Your task to perform on an android device: Go to ESPN.com Image 0: 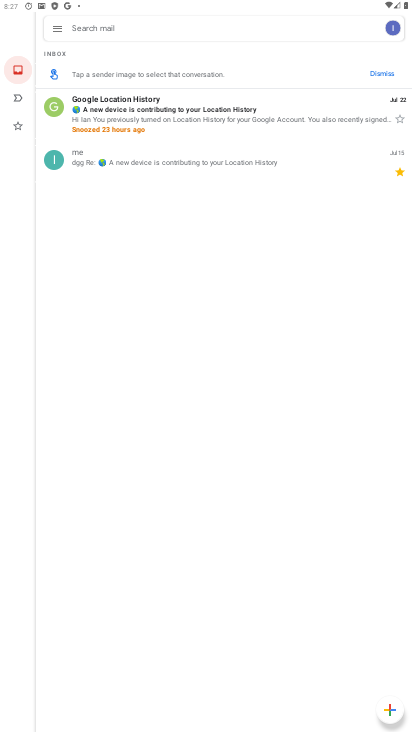
Step 0: press home button
Your task to perform on an android device: Go to ESPN.com Image 1: 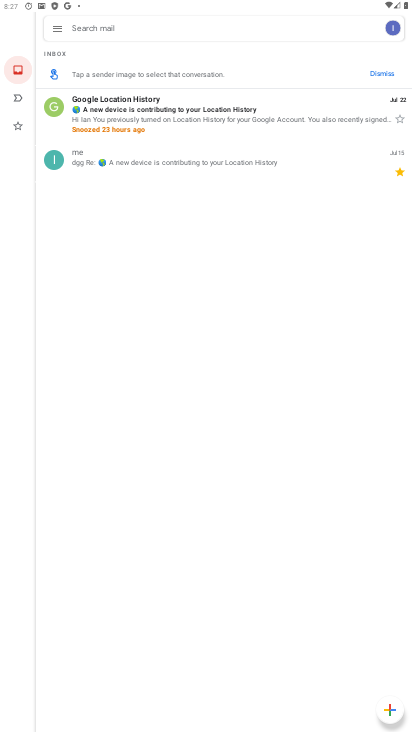
Step 1: press home button
Your task to perform on an android device: Go to ESPN.com Image 2: 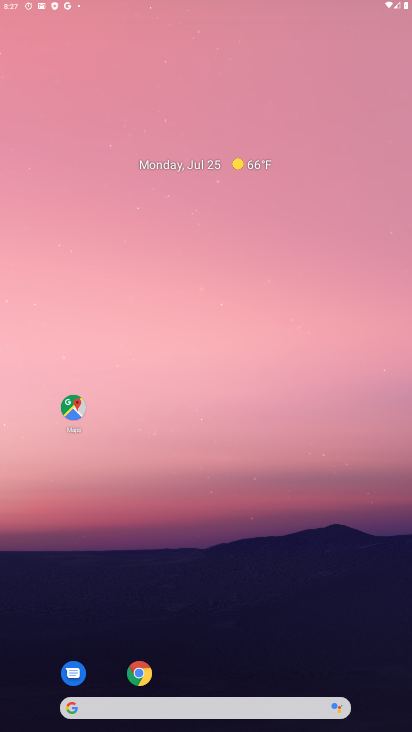
Step 2: drag from (230, 567) to (304, 37)
Your task to perform on an android device: Go to ESPN.com Image 3: 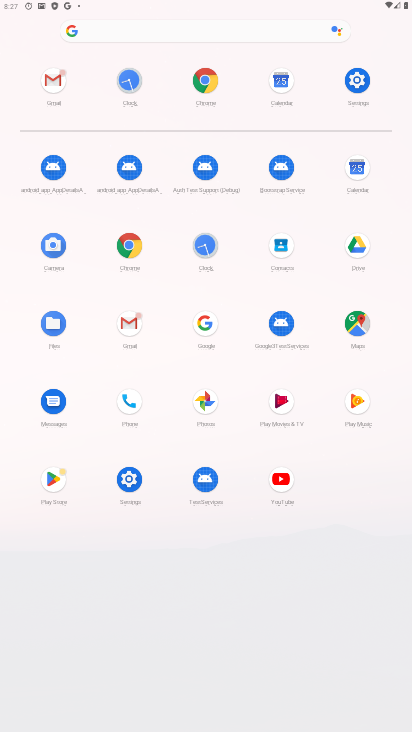
Step 3: click (123, 30)
Your task to perform on an android device: Go to ESPN.com Image 4: 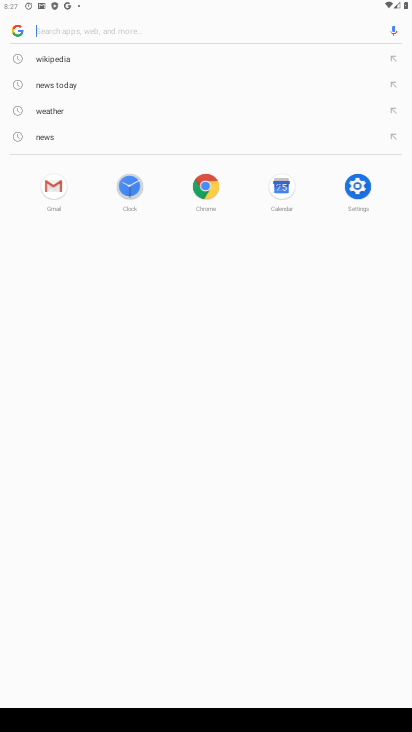
Step 4: type "ESPN.com"
Your task to perform on an android device: Go to ESPN.com Image 5: 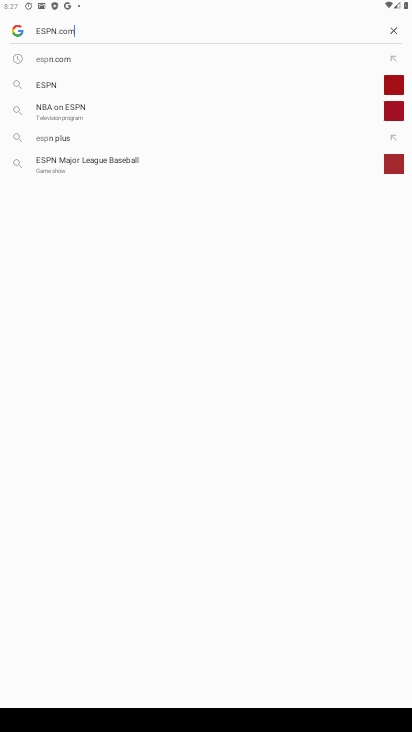
Step 5: type ""
Your task to perform on an android device: Go to ESPN.com Image 6: 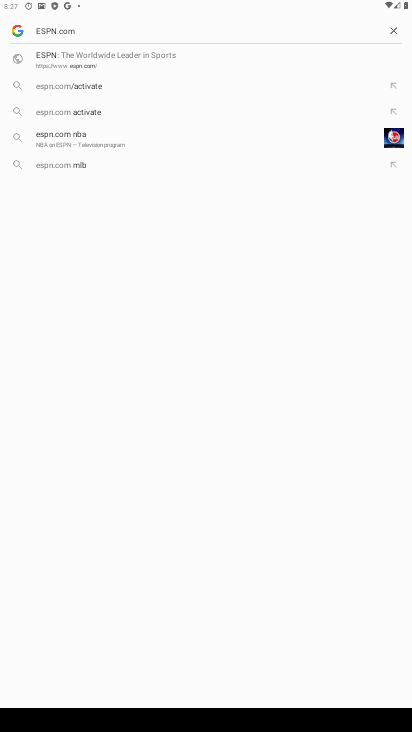
Step 6: click (52, 62)
Your task to perform on an android device: Go to ESPN.com Image 7: 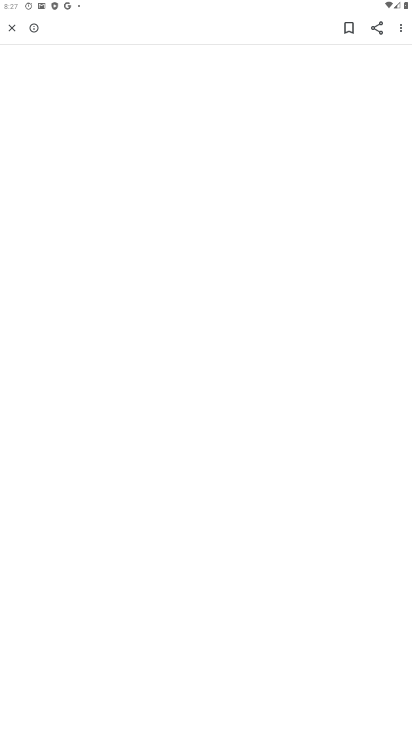
Step 7: task complete